Your task to perform on an android device: Check the weather Image 0: 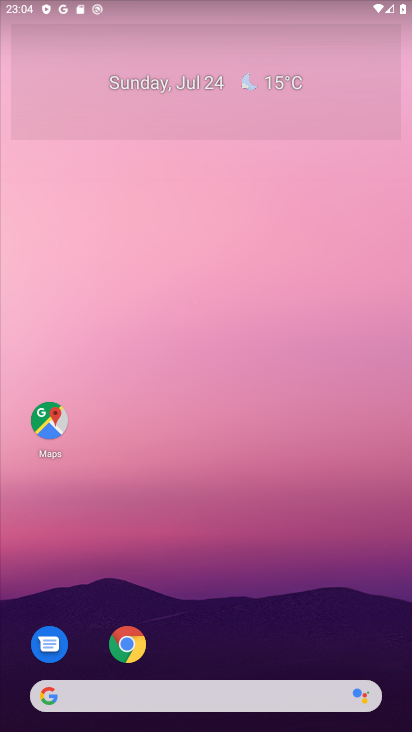
Step 0: drag from (233, 709) to (248, 213)
Your task to perform on an android device: Check the weather Image 1: 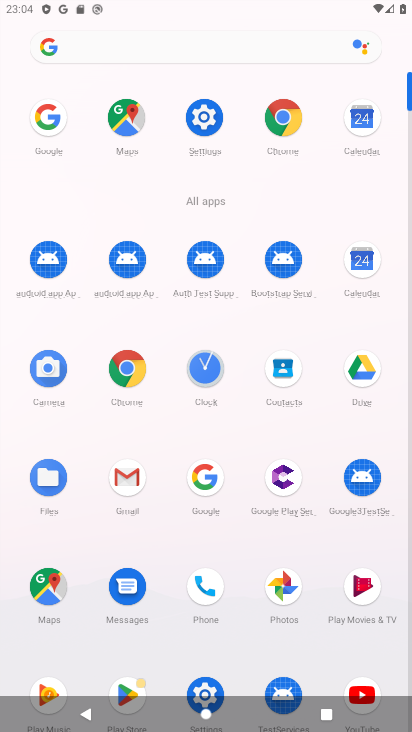
Step 1: click (203, 485)
Your task to perform on an android device: Check the weather Image 2: 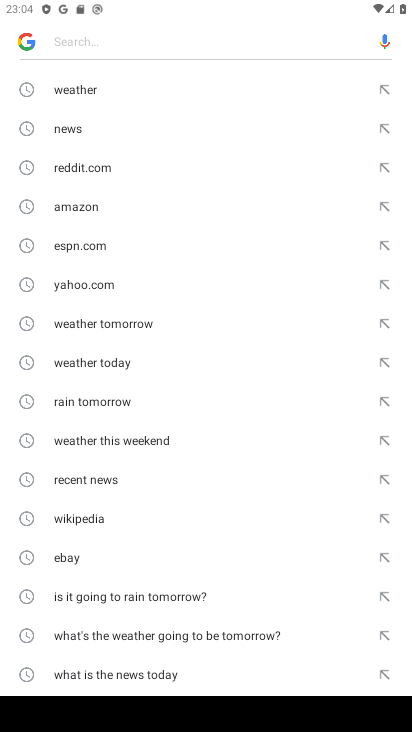
Step 2: click (82, 88)
Your task to perform on an android device: Check the weather Image 3: 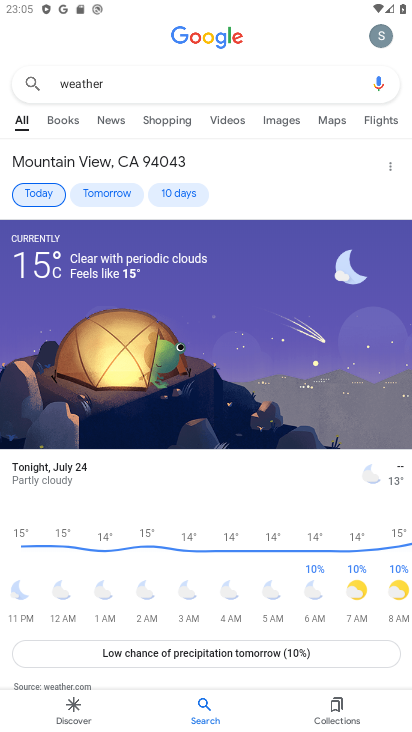
Step 3: task complete